Your task to perform on an android device: Open battery settings Image 0: 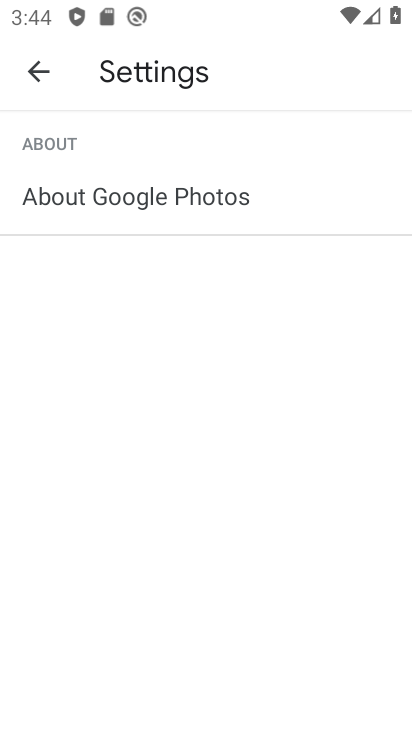
Step 0: press home button
Your task to perform on an android device: Open battery settings Image 1: 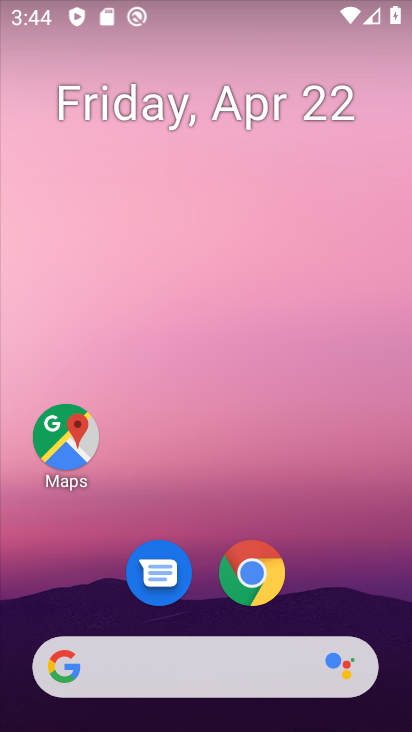
Step 1: drag from (303, 602) to (411, 259)
Your task to perform on an android device: Open battery settings Image 2: 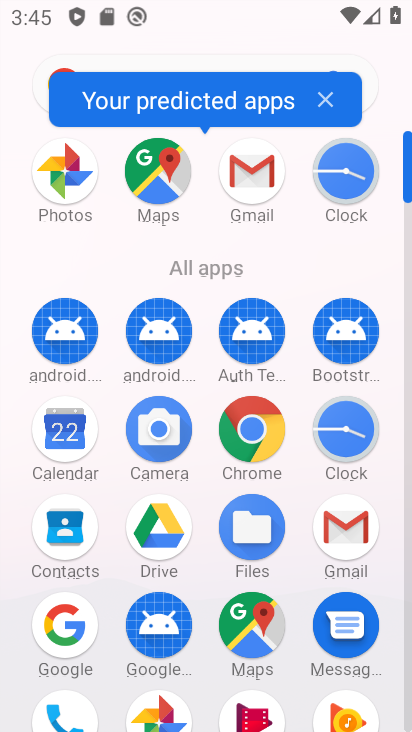
Step 2: drag from (192, 575) to (293, 142)
Your task to perform on an android device: Open battery settings Image 3: 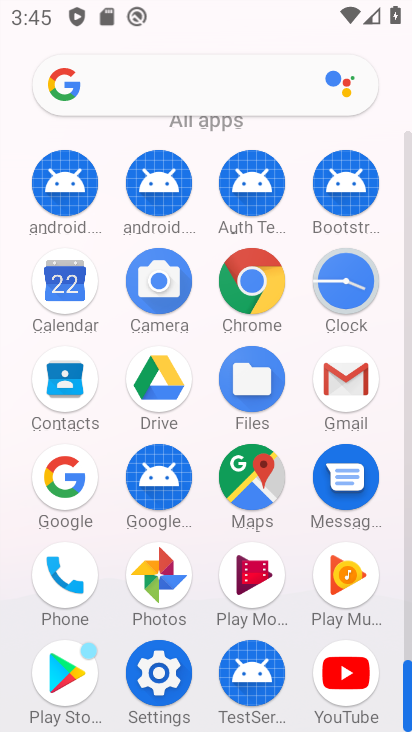
Step 3: click (161, 678)
Your task to perform on an android device: Open battery settings Image 4: 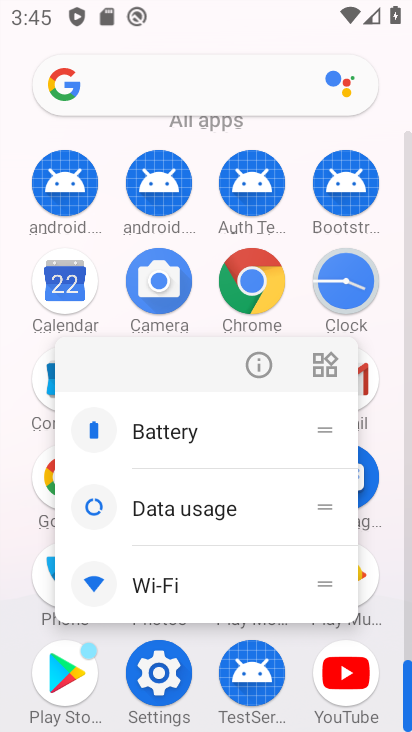
Step 4: click (181, 655)
Your task to perform on an android device: Open battery settings Image 5: 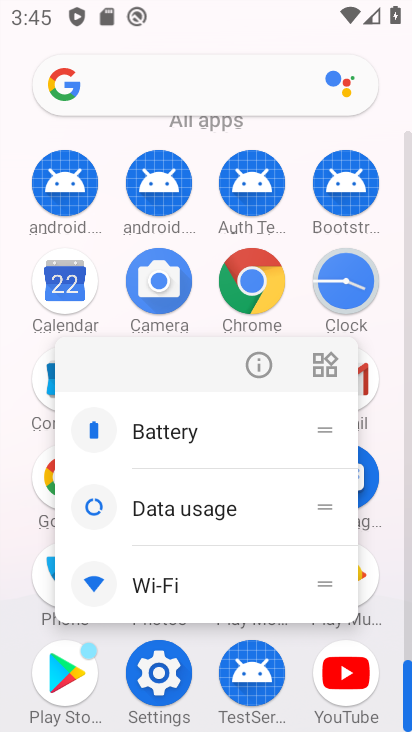
Step 5: click (160, 659)
Your task to perform on an android device: Open battery settings Image 6: 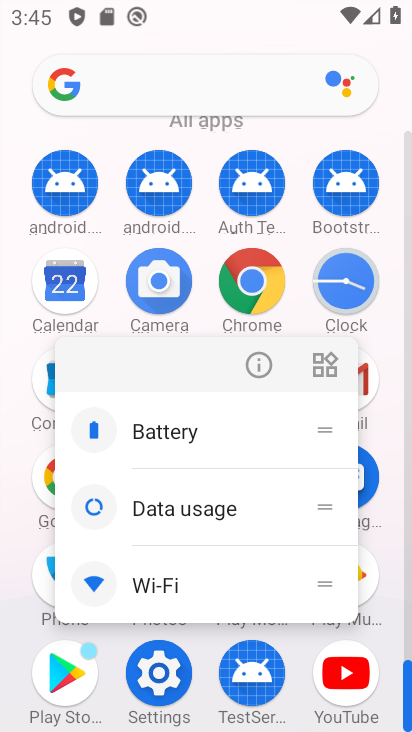
Step 6: click (160, 659)
Your task to perform on an android device: Open battery settings Image 7: 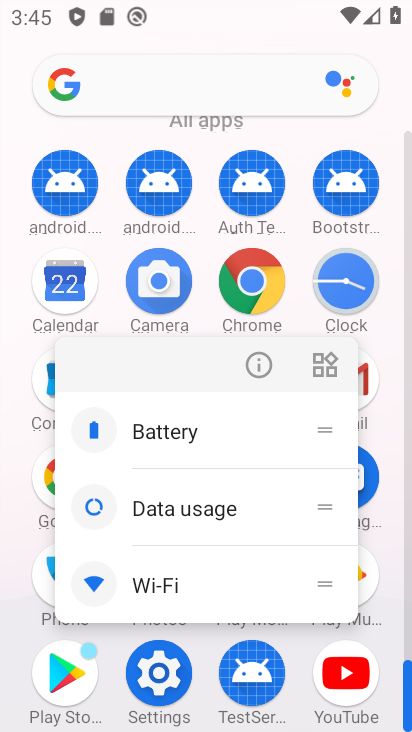
Step 7: click (160, 668)
Your task to perform on an android device: Open battery settings Image 8: 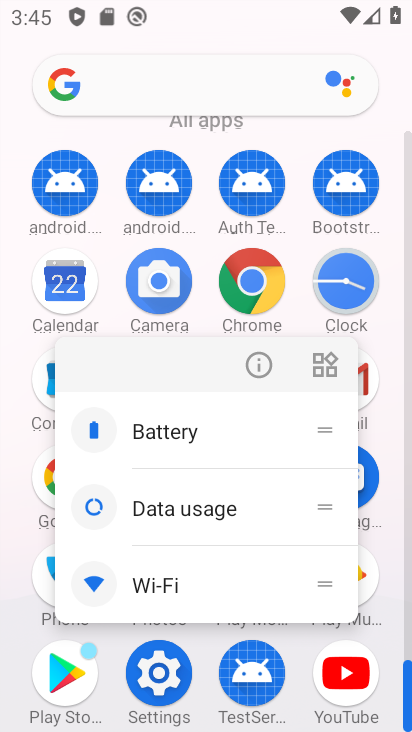
Step 8: click (160, 681)
Your task to perform on an android device: Open battery settings Image 9: 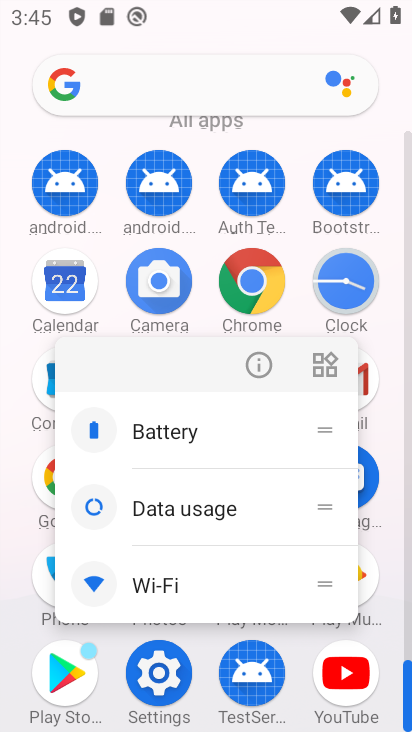
Step 9: click (160, 681)
Your task to perform on an android device: Open battery settings Image 10: 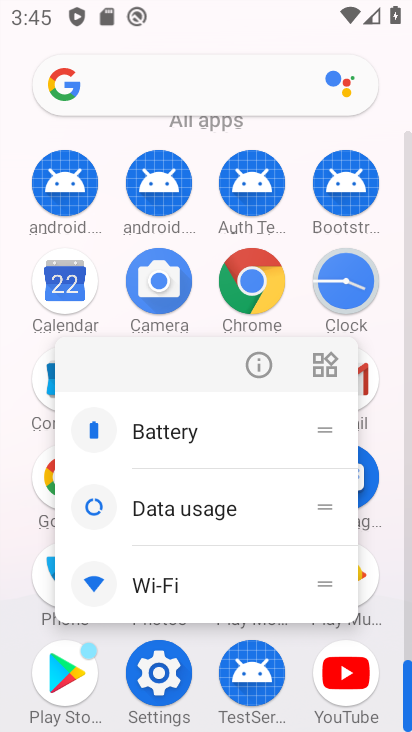
Step 10: click (160, 681)
Your task to perform on an android device: Open battery settings Image 11: 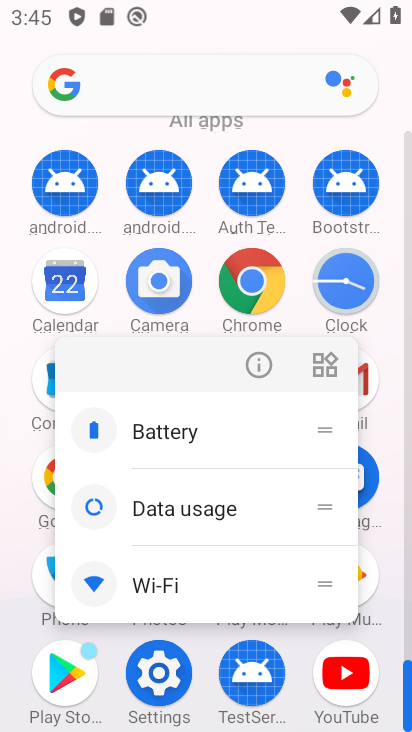
Step 11: click (176, 664)
Your task to perform on an android device: Open battery settings Image 12: 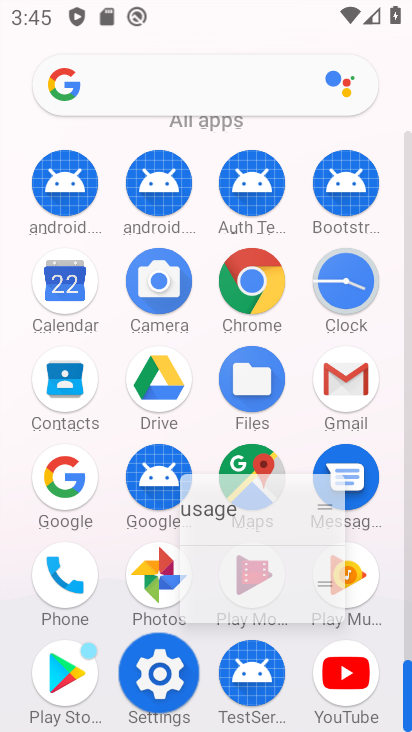
Step 12: click (176, 664)
Your task to perform on an android device: Open battery settings Image 13: 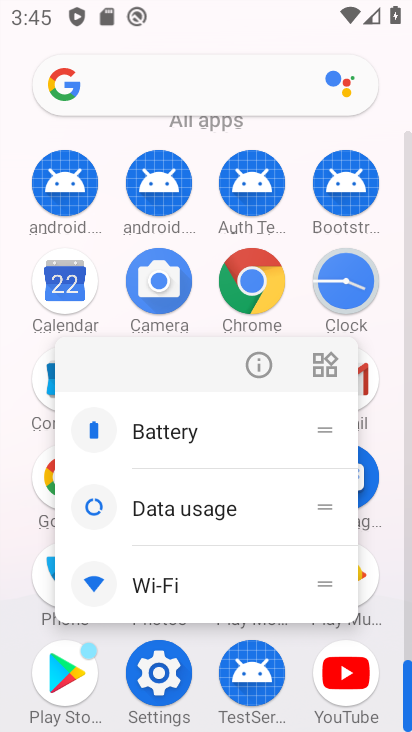
Step 13: click (150, 690)
Your task to perform on an android device: Open battery settings Image 14: 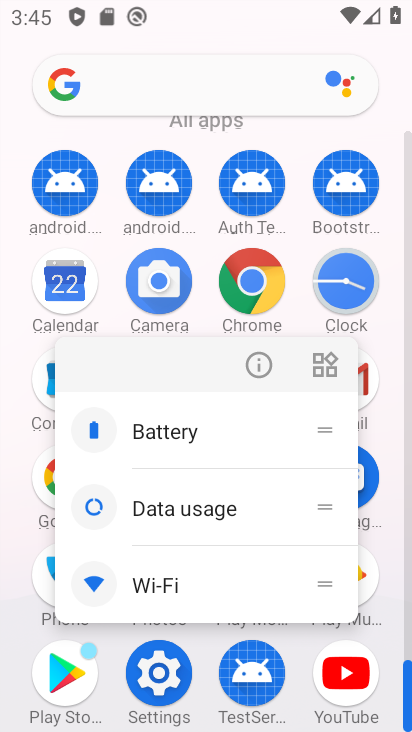
Step 14: click (150, 690)
Your task to perform on an android device: Open battery settings Image 15: 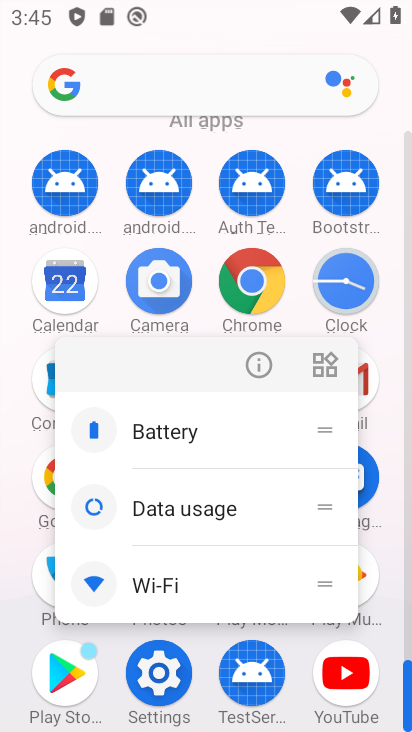
Step 15: click (159, 675)
Your task to perform on an android device: Open battery settings Image 16: 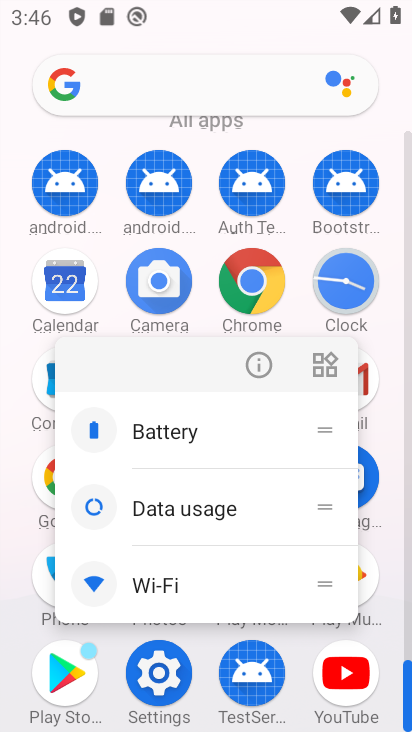
Step 16: click (159, 675)
Your task to perform on an android device: Open battery settings Image 17: 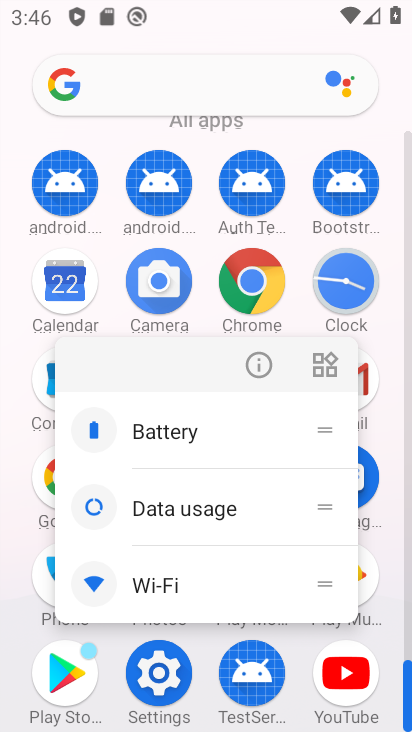
Step 17: click (159, 675)
Your task to perform on an android device: Open battery settings Image 18: 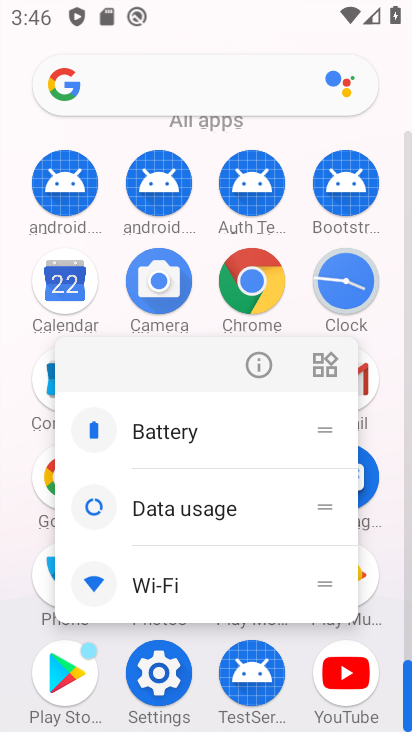
Step 18: click (159, 675)
Your task to perform on an android device: Open battery settings Image 19: 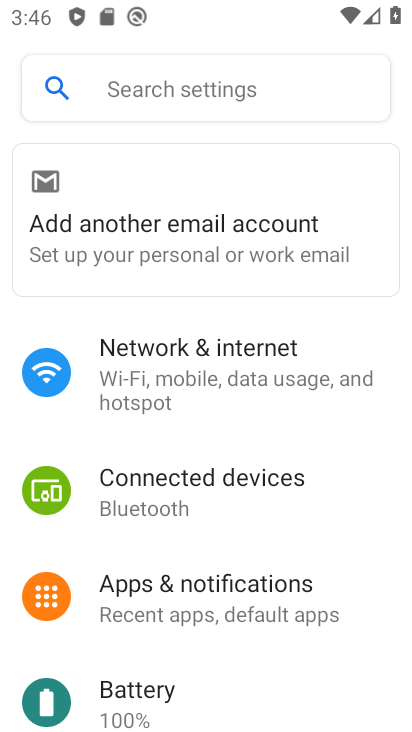
Step 19: click (167, 694)
Your task to perform on an android device: Open battery settings Image 20: 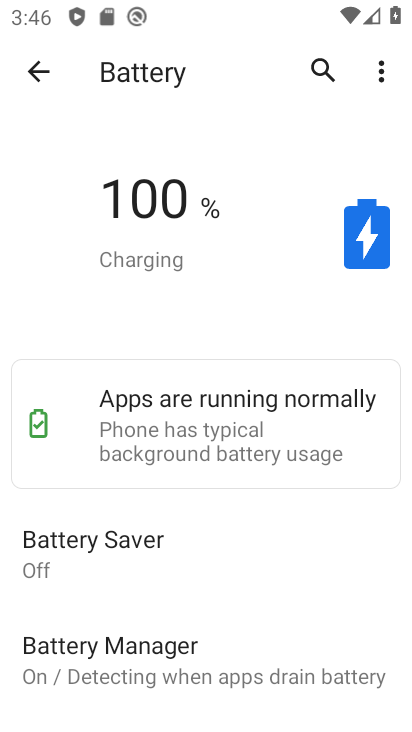
Step 20: task complete